Your task to perform on an android device: Search for "apple airpods pro" on target, select the first entry, add it to the cart, then select checkout. Image 0: 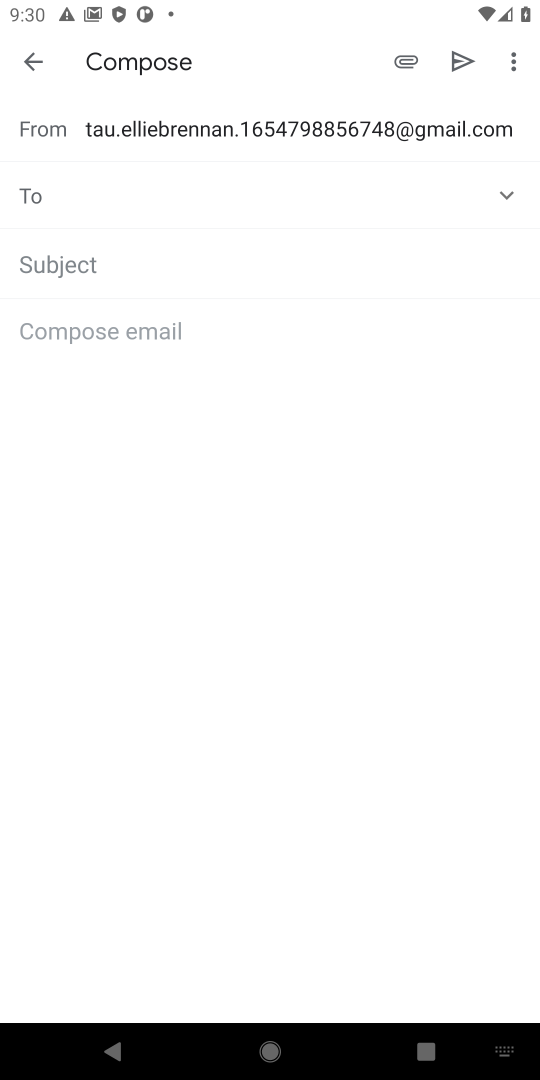
Step 0: press home button
Your task to perform on an android device: Search for "apple airpods pro" on target, select the first entry, add it to the cart, then select checkout. Image 1: 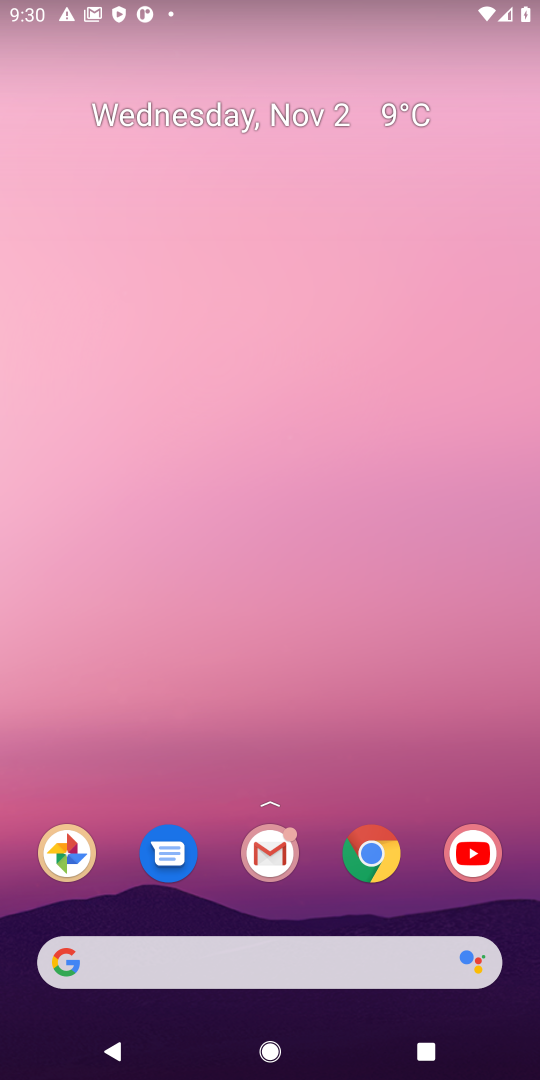
Step 1: click (373, 850)
Your task to perform on an android device: Search for "apple airpods pro" on target, select the first entry, add it to the cart, then select checkout. Image 2: 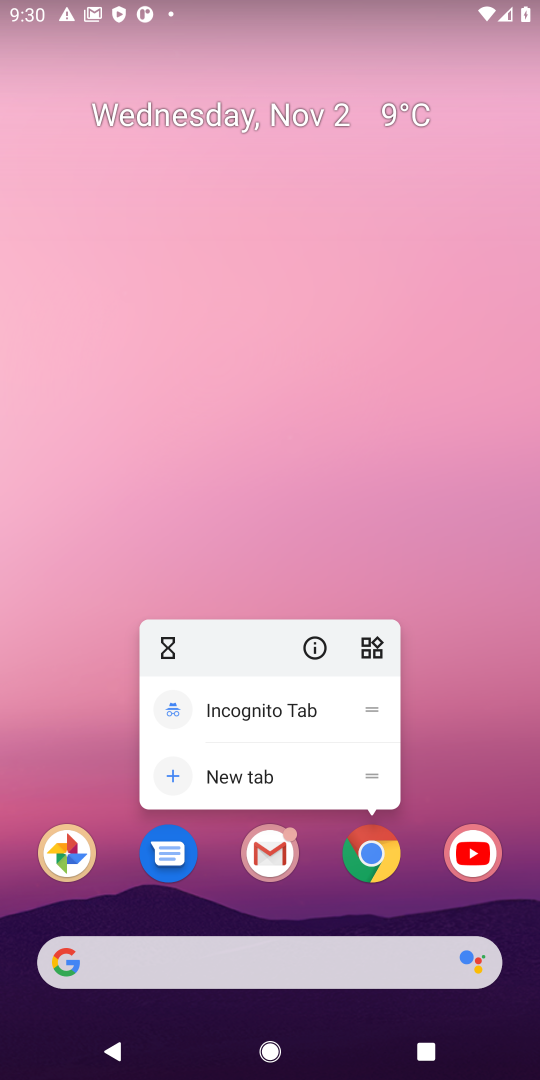
Step 2: click (372, 854)
Your task to perform on an android device: Search for "apple airpods pro" on target, select the first entry, add it to the cart, then select checkout. Image 3: 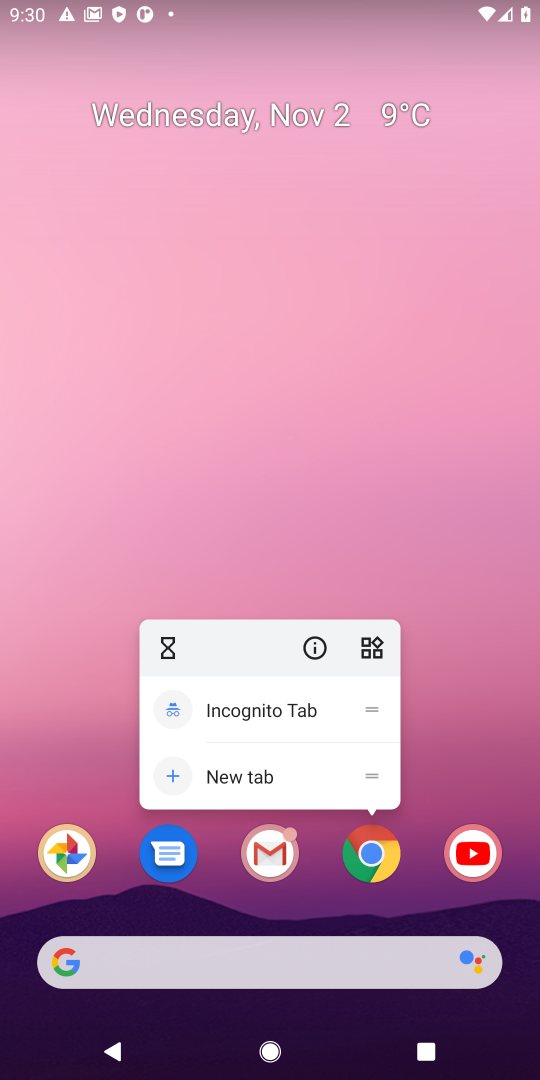
Step 3: click (372, 858)
Your task to perform on an android device: Search for "apple airpods pro" on target, select the first entry, add it to the cart, then select checkout. Image 4: 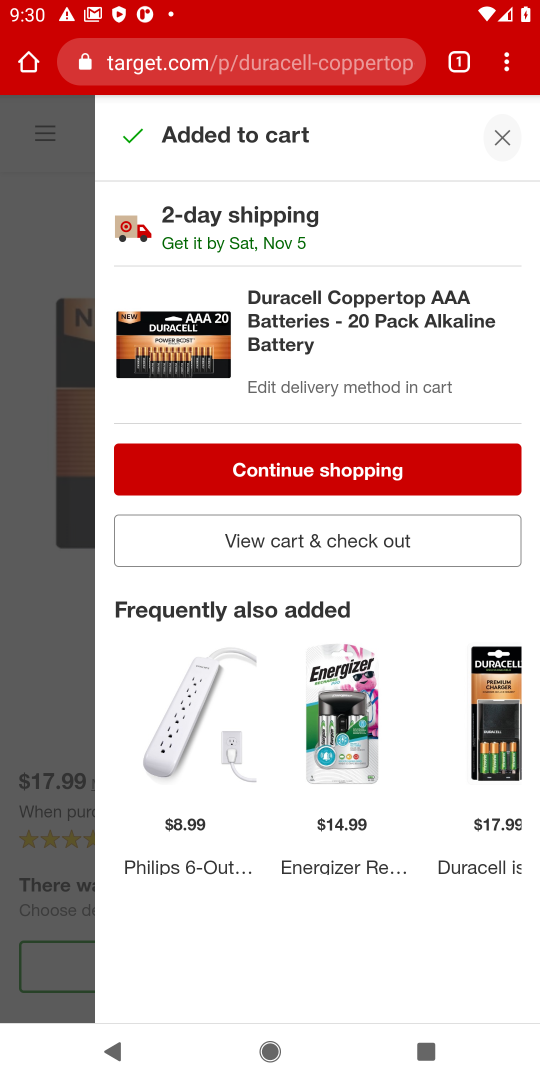
Step 4: click (496, 135)
Your task to perform on an android device: Search for "apple airpods pro" on target, select the first entry, add it to the cart, then select checkout. Image 5: 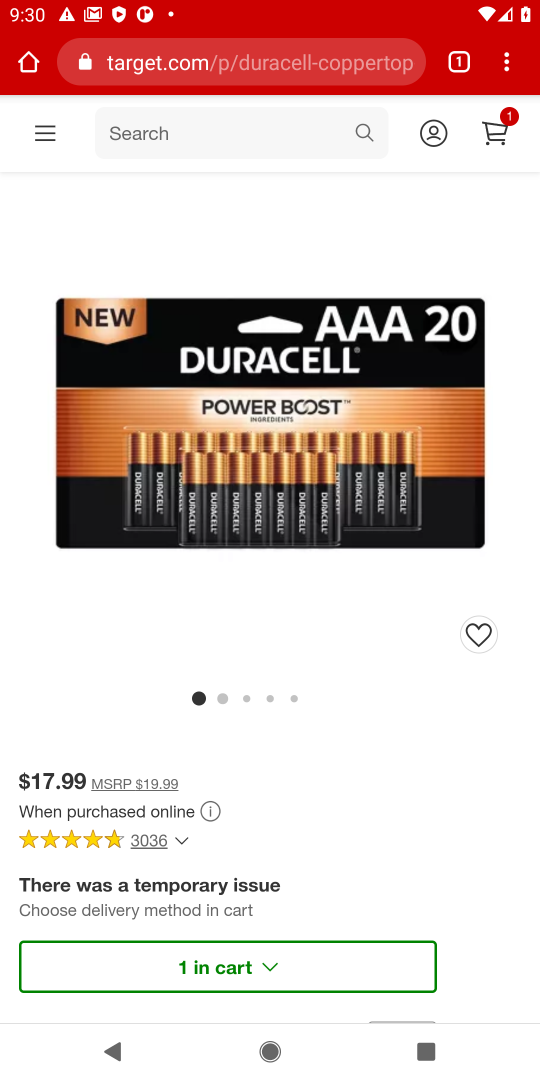
Step 5: click (169, 134)
Your task to perform on an android device: Search for "apple airpods pro" on target, select the first entry, add it to the cart, then select checkout. Image 6: 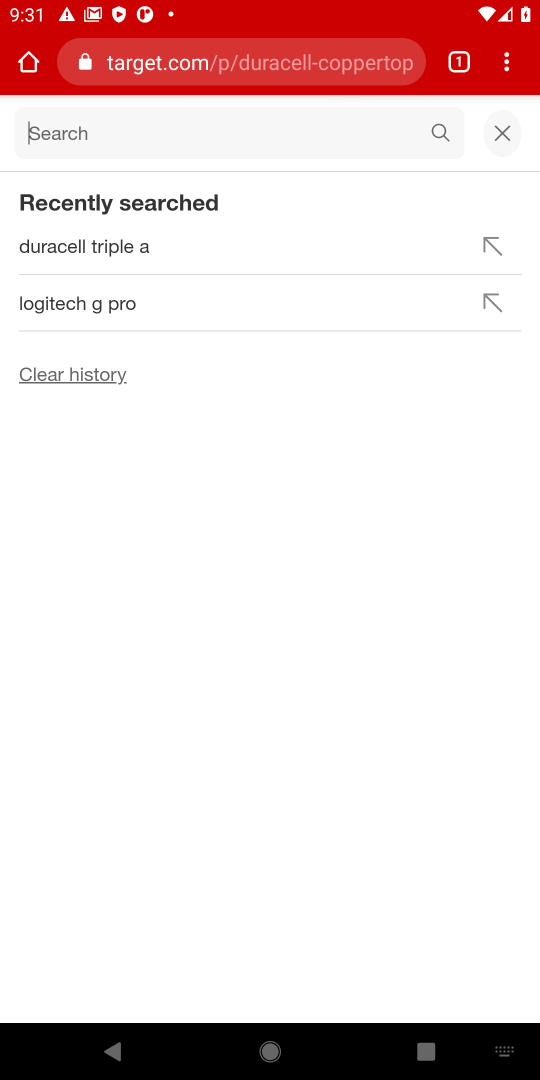
Step 6: type "apple airpods pro"
Your task to perform on an android device: Search for "apple airpods pro" on target, select the first entry, add it to the cart, then select checkout. Image 7: 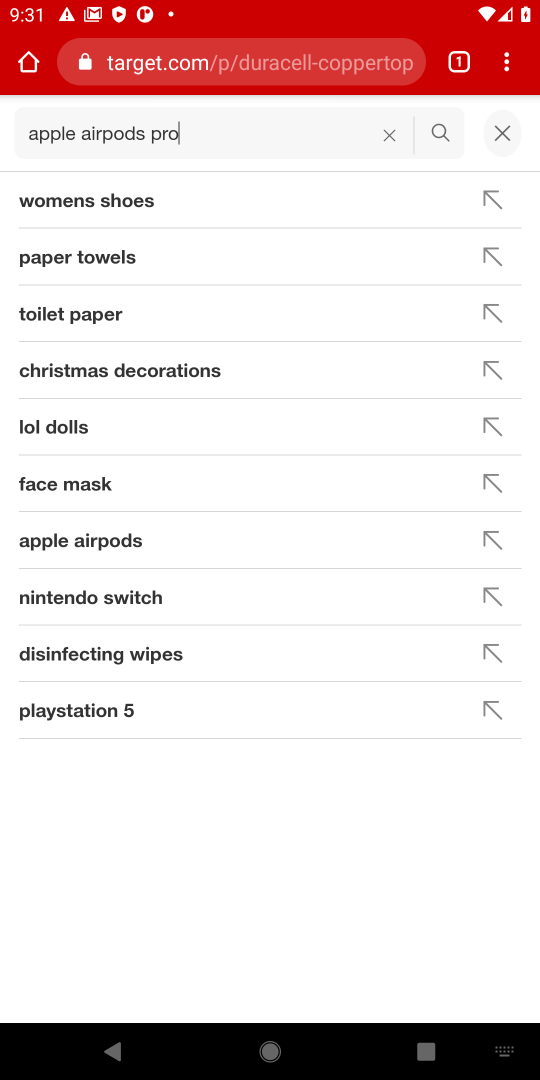
Step 7: press enter
Your task to perform on an android device: Search for "apple airpods pro" on target, select the first entry, add it to the cart, then select checkout. Image 8: 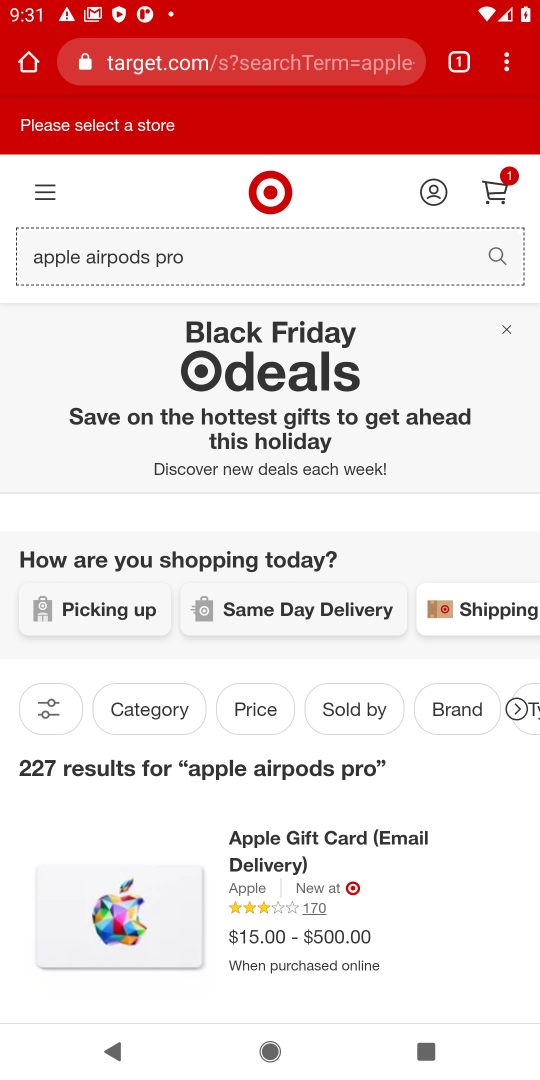
Step 8: drag from (192, 903) to (370, 516)
Your task to perform on an android device: Search for "apple airpods pro" on target, select the first entry, add it to the cart, then select checkout. Image 9: 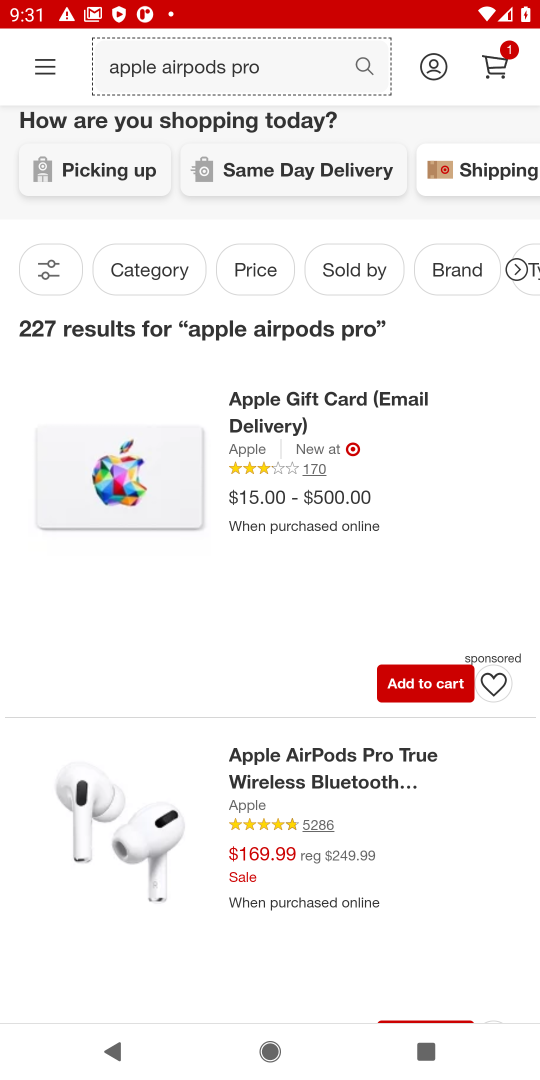
Step 9: drag from (310, 856) to (423, 653)
Your task to perform on an android device: Search for "apple airpods pro" on target, select the first entry, add it to the cart, then select checkout. Image 10: 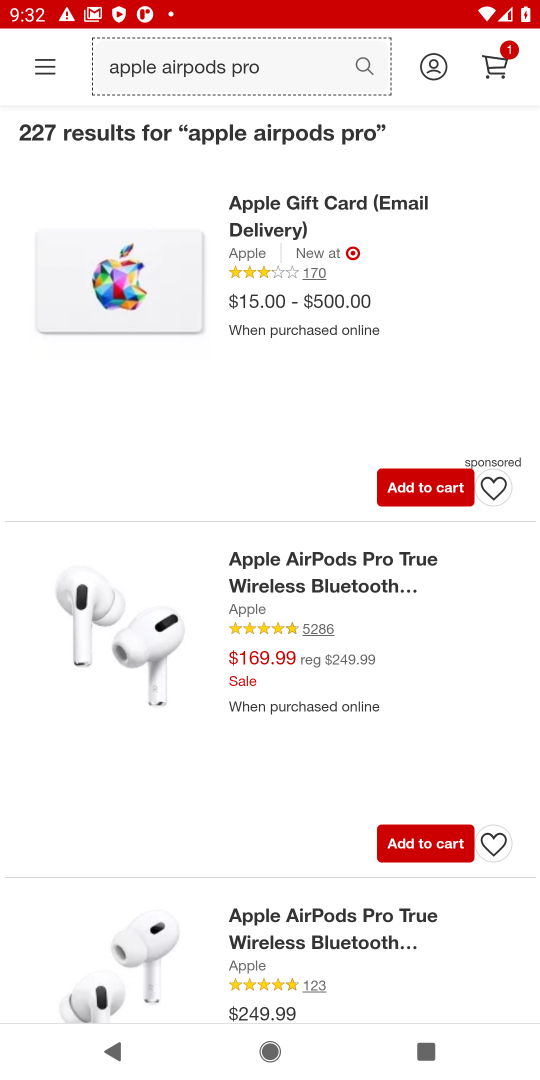
Step 10: drag from (357, 523) to (391, 397)
Your task to perform on an android device: Search for "apple airpods pro" on target, select the first entry, add it to the cart, then select checkout. Image 11: 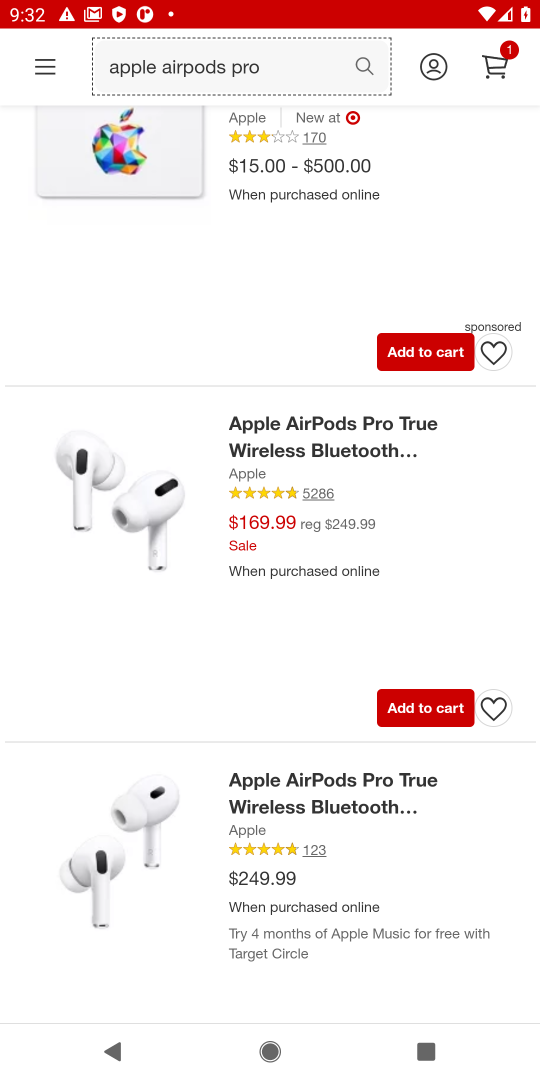
Step 11: click (400, 703)
Your task to perform on an android device: Search for "apple airpods pro" on target, select the first entry, add it to the cart, then select checkout. Image 12: 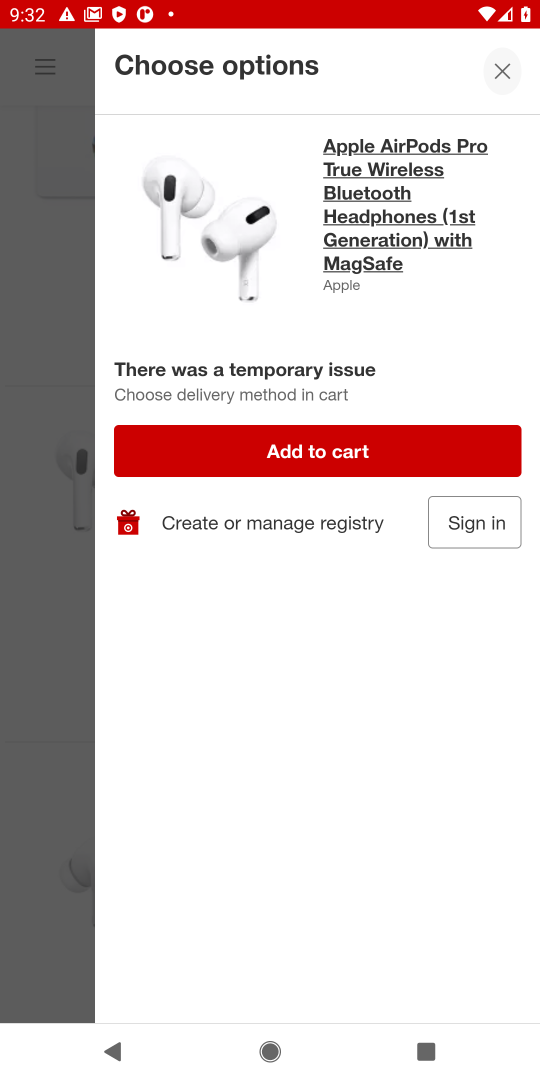
Step 12: click (312, 458)
Your task to perform on an android device: Search for "apple airpods pro" on target, select the first entry, add it to the cart, then select checkout. Image 13: 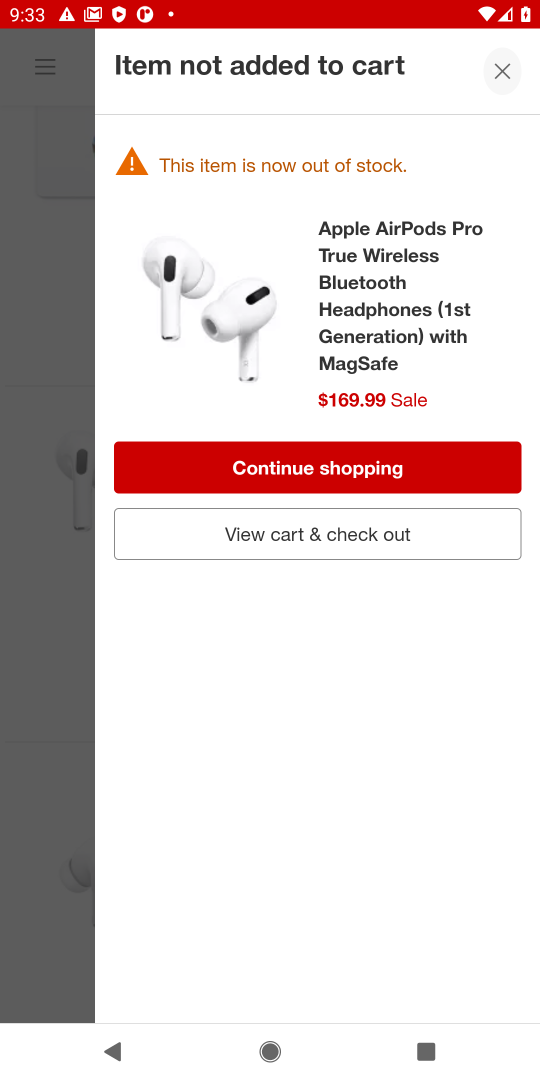
Step 13: click (300, 539)
Your task to perform on an android device: Search for "apple airpods pro" on target, select the first entry, add it to the cart, then select checkout. Image 14: 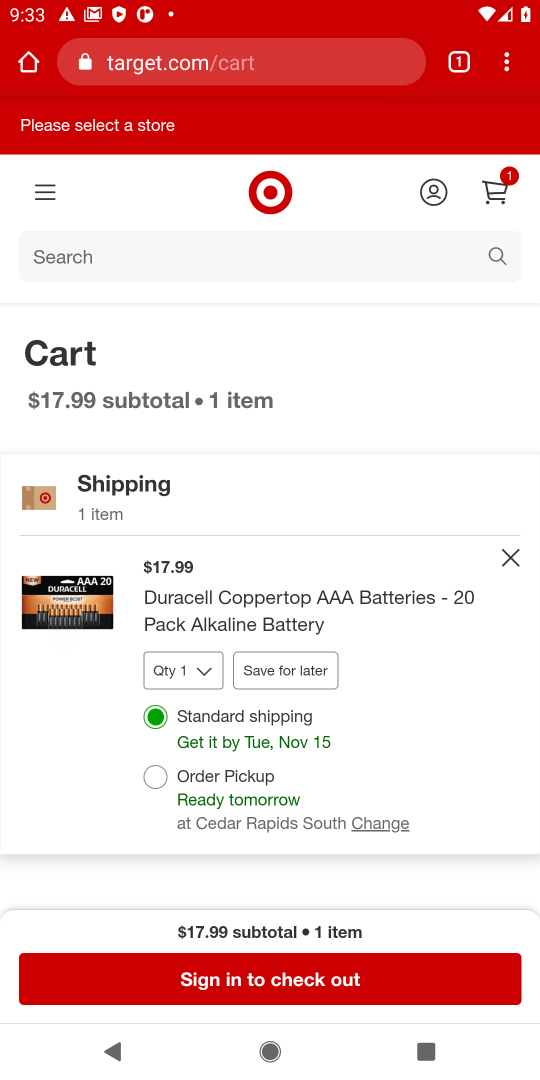
Step 14: click (267, 982)
Your task to perform on an android device: Search for "apple airpods pro" on target, select the first entry, add it to the cart, then select checkout. Image 15: 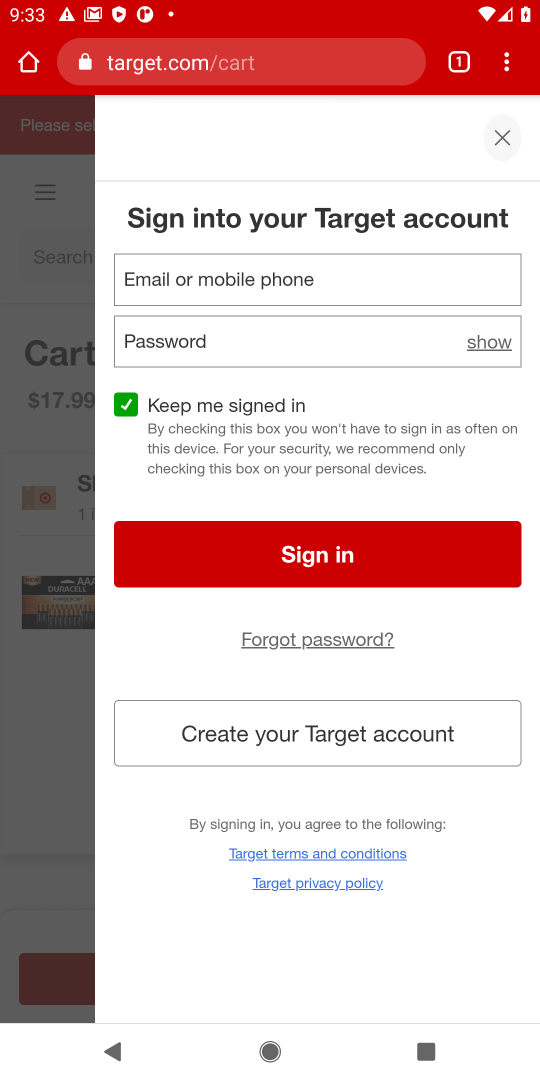
Step 15: task complete